Your task to perform on an android device: Search for good Japanese restaurants Image 0: 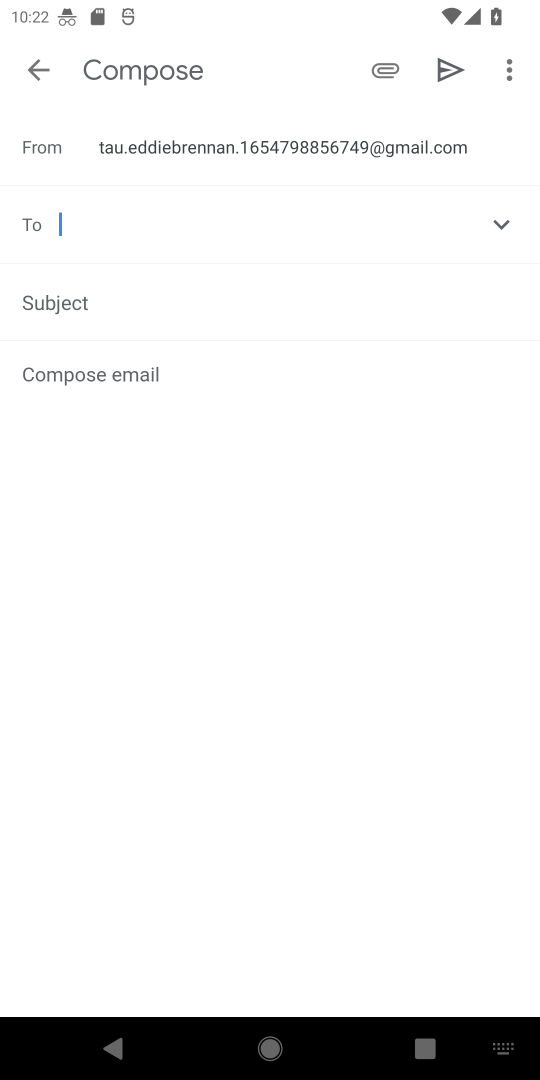
Step 0: press home button
Your task to perform on an android device: Search for good Japanese restaurants Image 1: 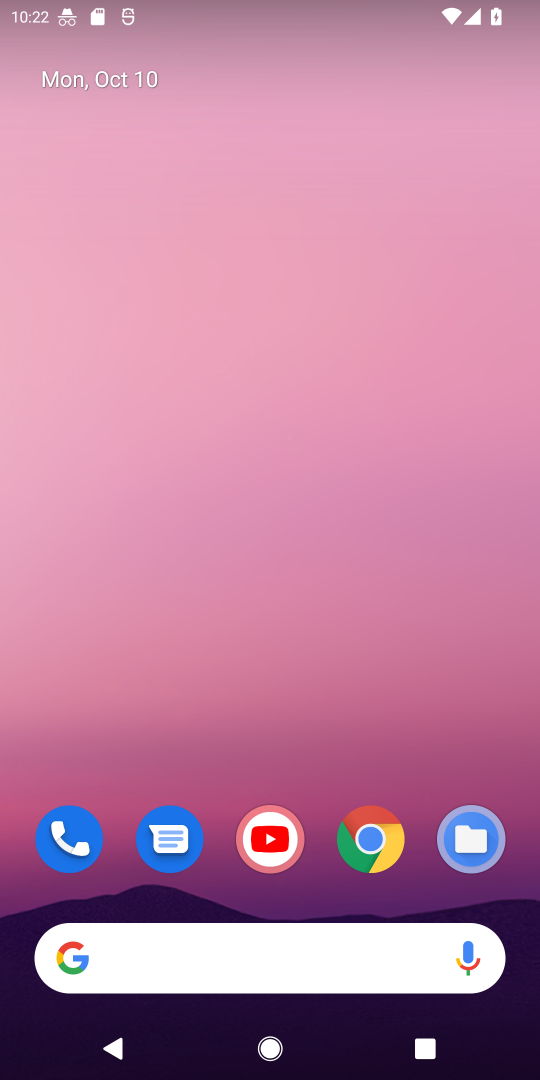
Step 1: drag from (335, 895) to (315, 10)
Your task to perform on an android device: Search for good Japanese restaurants Image 2: 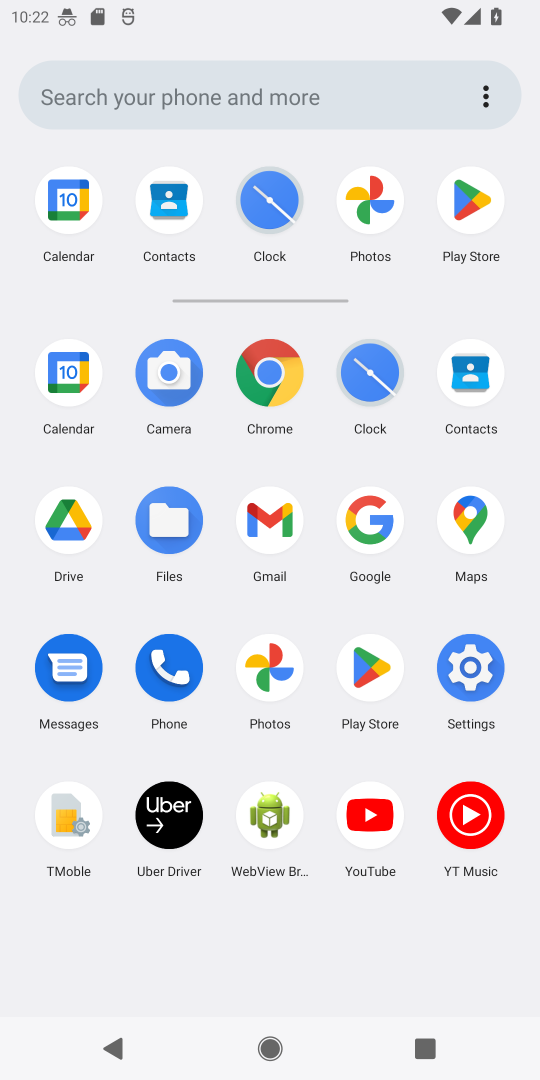
Step 2: click (280, 382)
Your task to perform on an android device: Search for good Japanese restaurants Image 3: 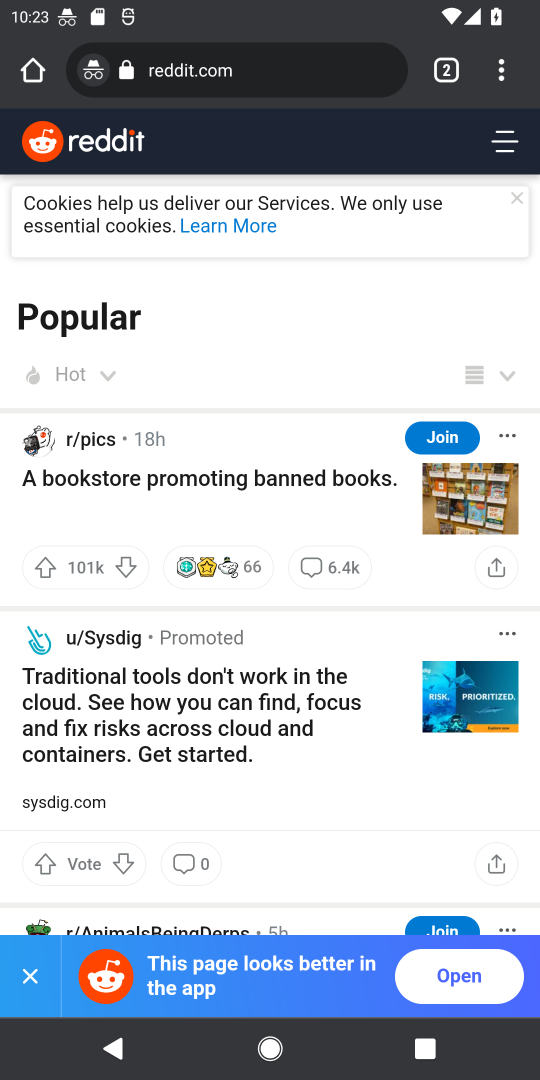
Step 3: click (248, 72)
Your task to perform on an android device: Search for good Japanese restaurants Image 4: 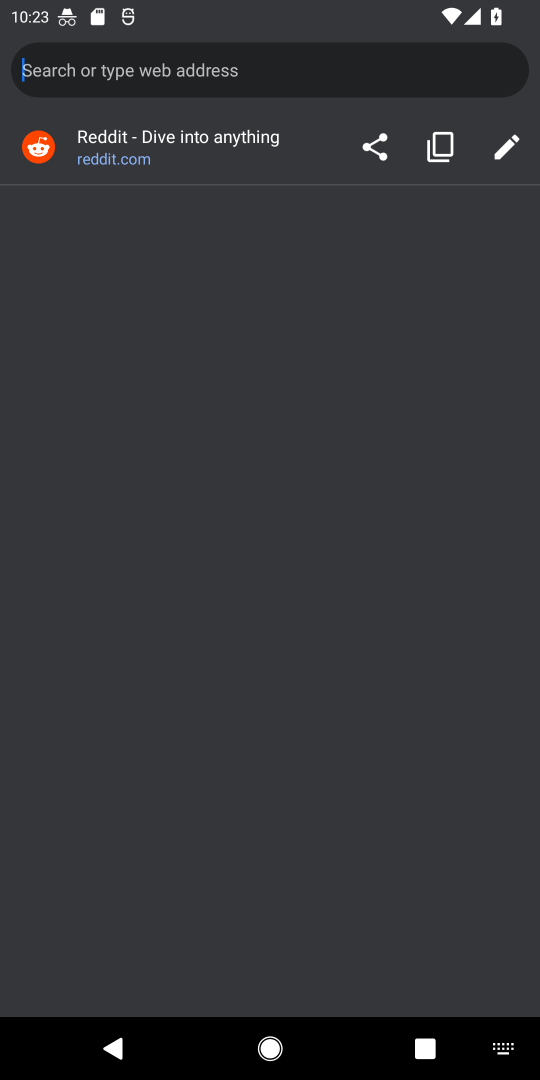
Step 4: type "good Japanese restaurants"
Your task to perform on an android device: Search for good Japanese restaurants Image 5: 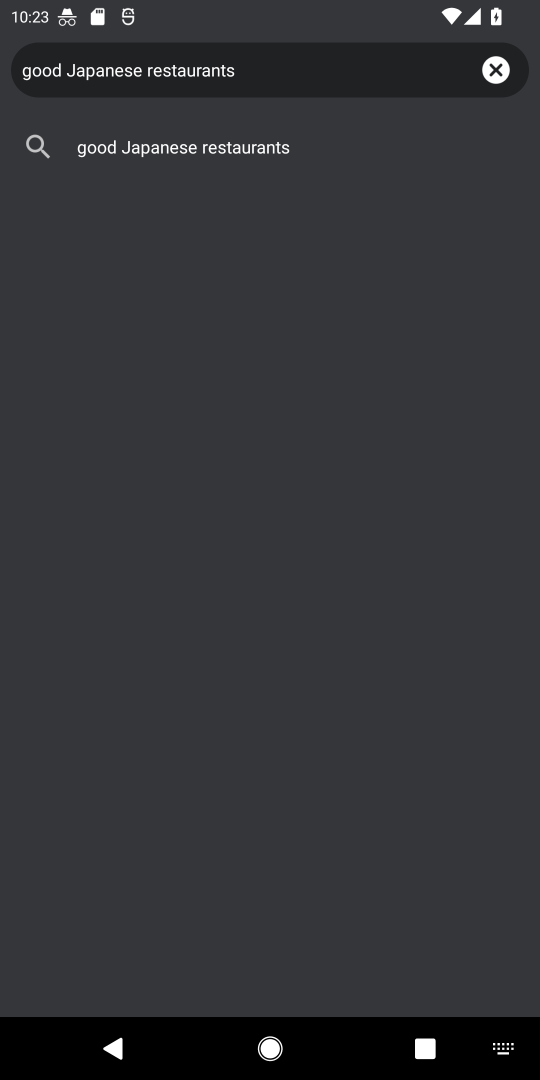
Step 5: press enter
Your task to perform on an android device: Search for good Japanese restaurants Image 6: 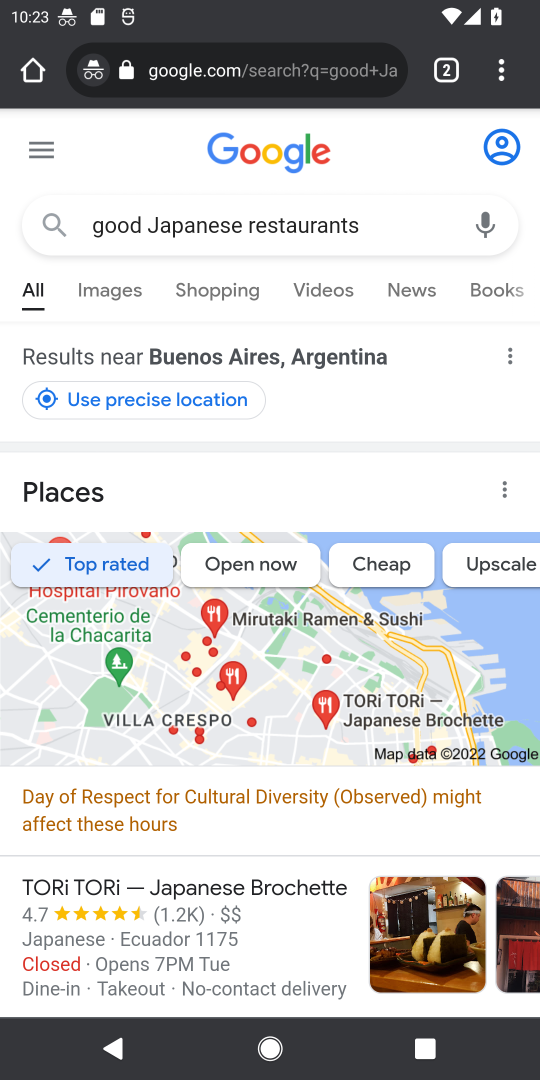
Step 6: task complete